Your task to perform on an android device: turn on data saver in the chrome app Image 0: 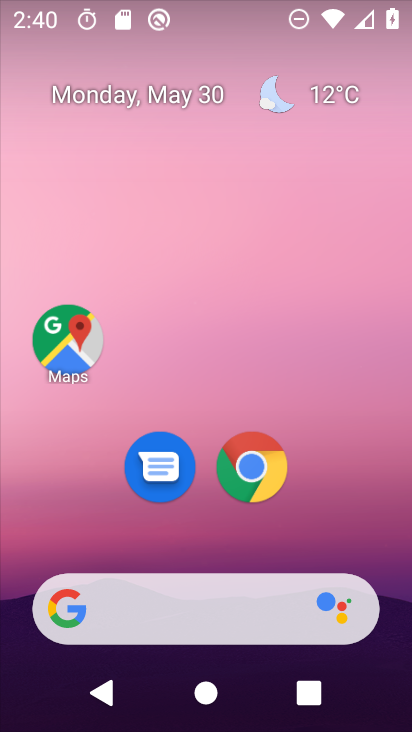
Step 0: click (243, 462)
Your task to perform on an android device: turn on data saver in the chrome app Image 1: 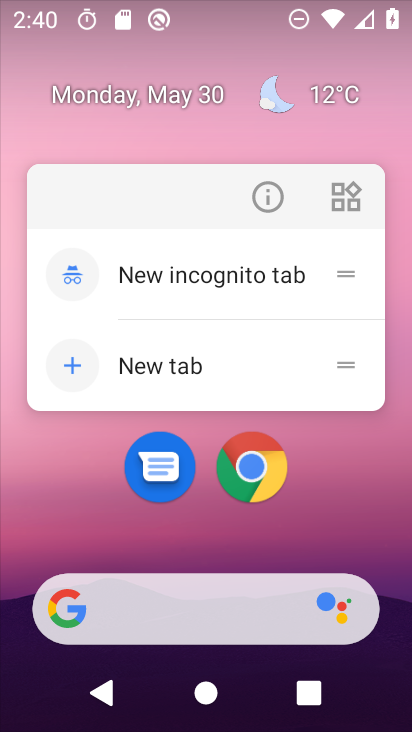
Step 1: click (241, 461)
Your task to perform on an android device: turn on data saver in the chrome app Image 2: 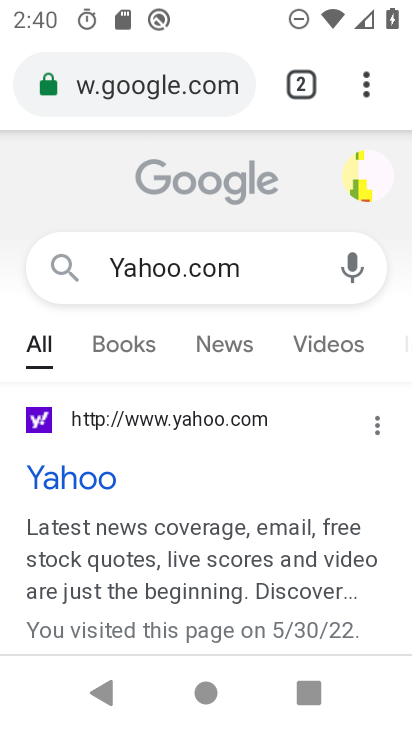
Step 2: click (359, 77)
Your task to perform on an android device: turn on data saver in the chrome app Image 3: 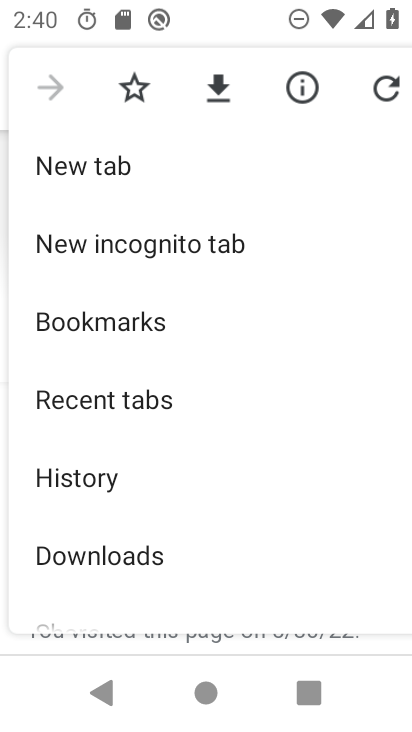
Step 3: drag from (281, 610) to (228, 270)
Your task to perform on an android device: turn on data saver in the chrome app Image 4: 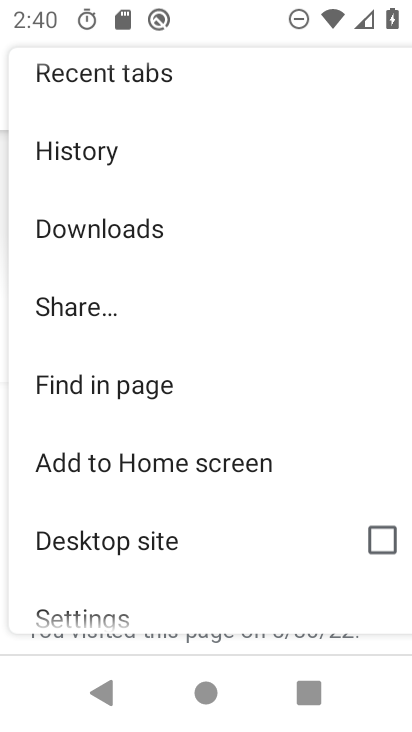
Step 4: drag from (260, 583) to (210, 277)
Your task to perform on an android device: turn on data saver in the chrome app Image 5: 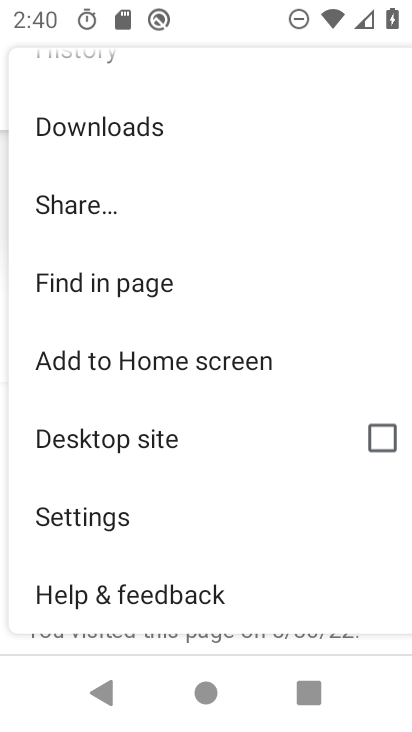
Step 5: drag from (202, 568) to (188, 260)
Your task to perform on an android device: turn on data saver in the chrome app Image 6: 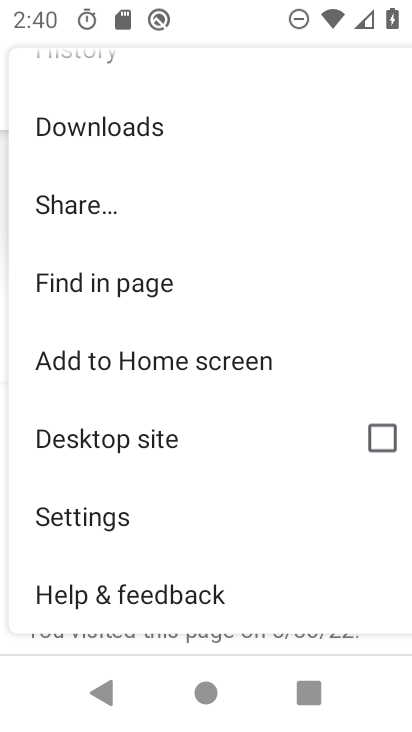
Step 6: click (89, 520)
Your task to perform on an android device: turn on data saver in the chrome app Image 7: 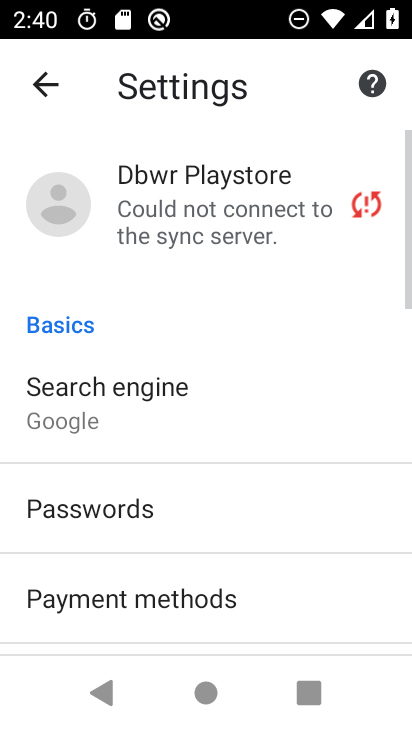
Step 7: drag from (295, 606) to (274, 303)
Your task to perform on an android device: turn on data saver in the chrome app Image 8: 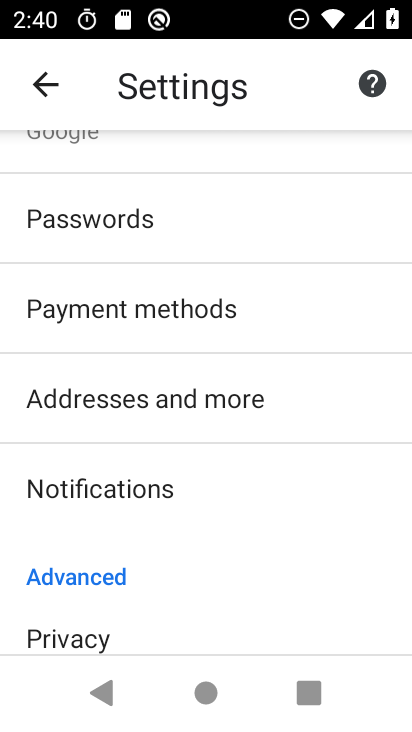
Step 8: drag from (298, 613) to (253, 291)
Your task to perform on an android device: turn on data saver in the chrome app Image 9: 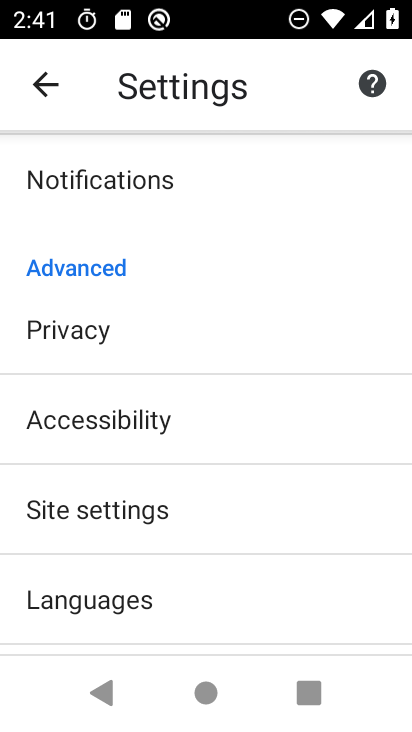
Step 9: drag from (257, 603) to (227, 338)
Your task to perform on an android device: turn on data saver in the chrome app Image 10: 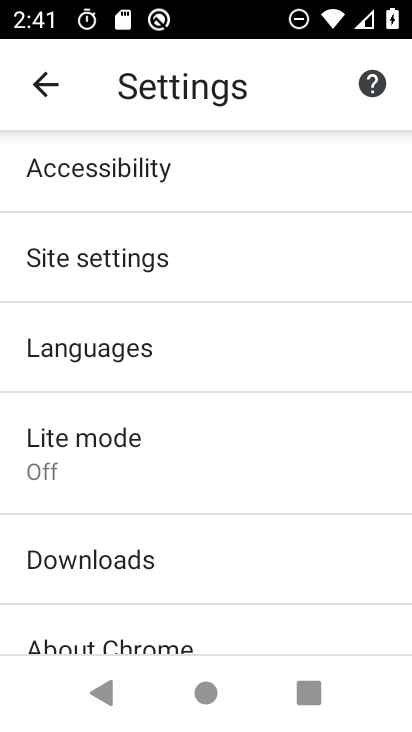
Step 10: click (95, 437)
Your task to perform on an android device: turn on data saver in the chrome app Image 11: 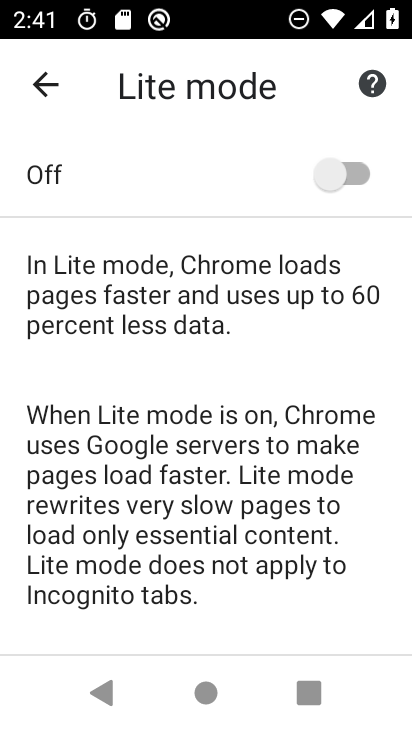
Step 11: click (366, 176)
Your task to perform on an android device: turn on data saver in the chrome app Image 12: 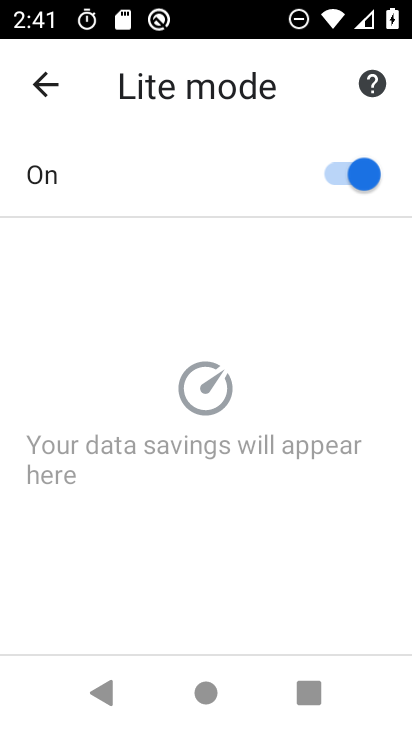
Step 12: task complete